Your task to perform on an android device: allow notifications from all sites in the chrome app Image 0: 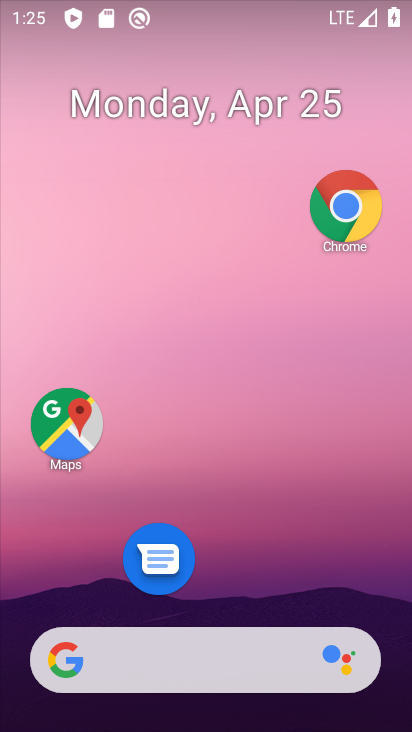
Step 0: click (329, 204)
Your task to perform on an android device: allow notifications from all sites in the chrome app Image 1: 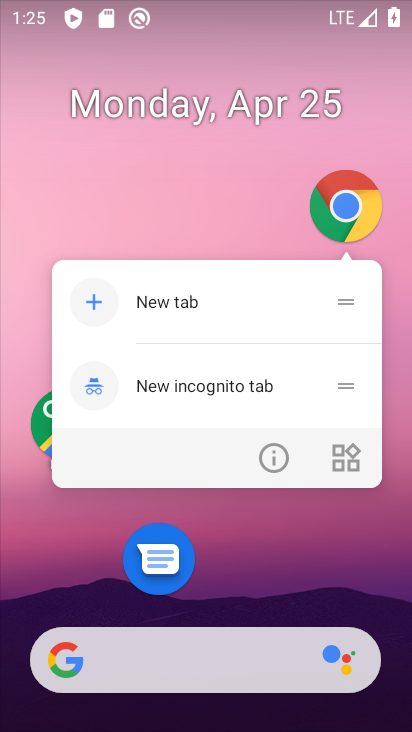
Step 1: click (346, 198)
Your task to perform on an android device: allow notifications from all sites in the chrome app Image 2: 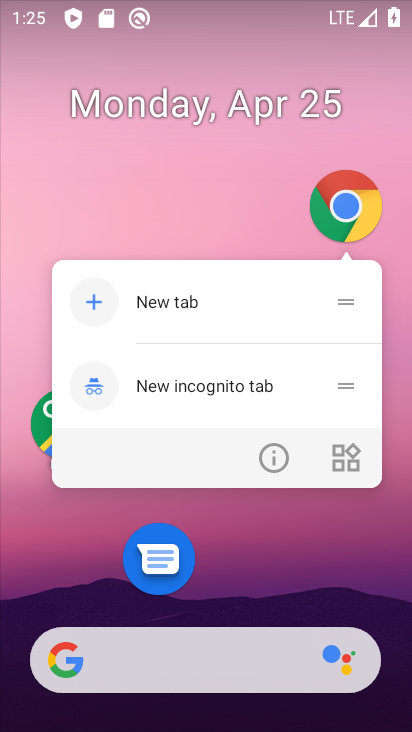
Step 2: click (338, 202)
Your task to perform on an android device: allow notifications from all sites in the chrome app Image 3: 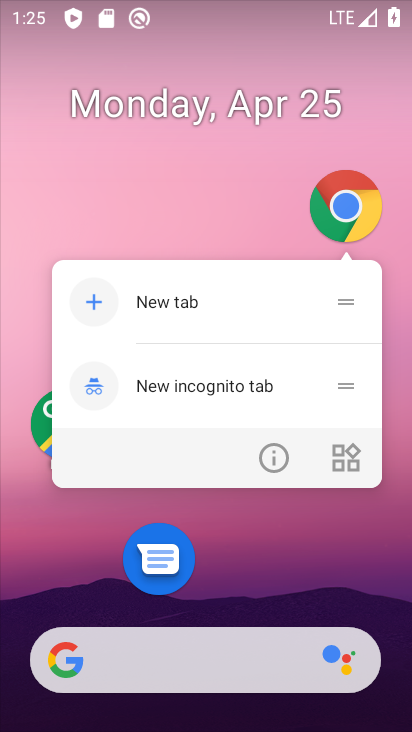
Step 3: click (347, 207)
Your task to perform on an android device: allow notifications from all sites in the chrome app Image 4: 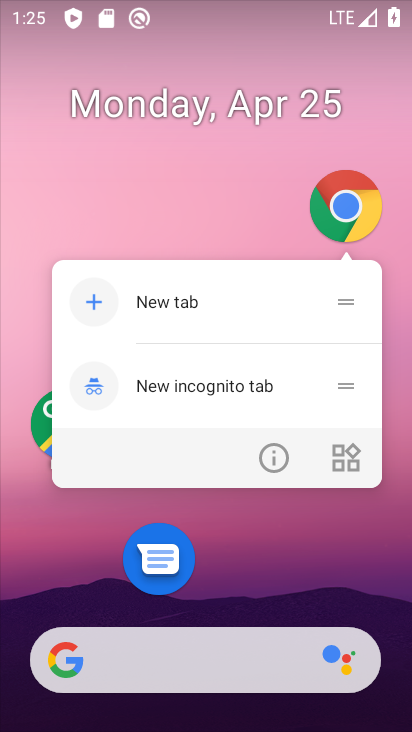
Step 4: click (342, 201)
Your task to perform on an android device: allow notifications from all sites in the chrome app Image 5: 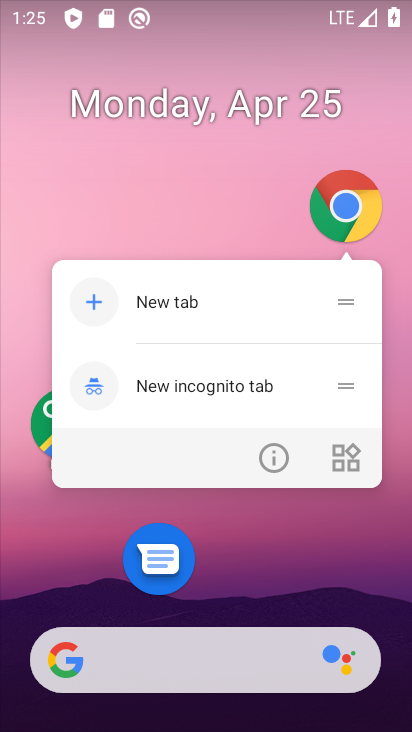
Step 5: click (351, 217)
Your task to perform on an android device: allow notifications from all sites in the chrome app Image 6: 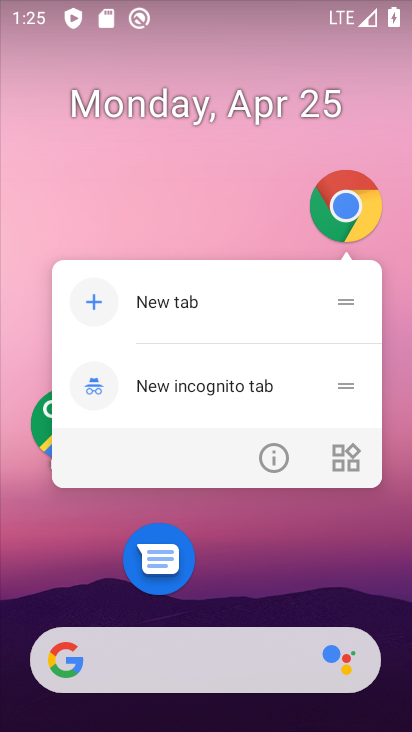
Step 6: click (359, 209)
Your task to perform on an android device: allow notifications from all sites in the chrome app Image 7: 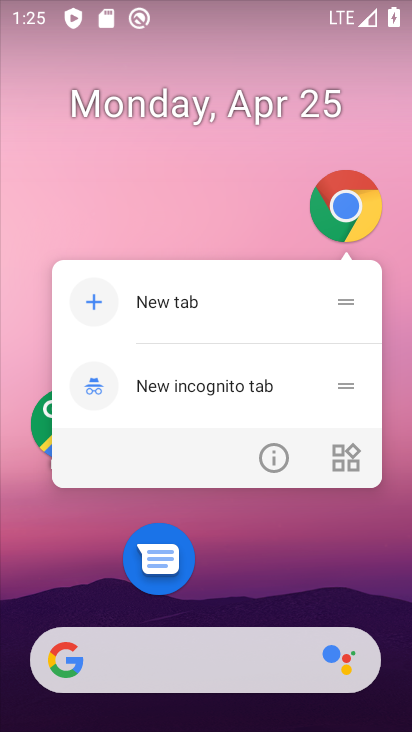
Step 7: click (330, 202)
Your task to perform on an android device: allow notifications from all sites in the chrome app Image 8: 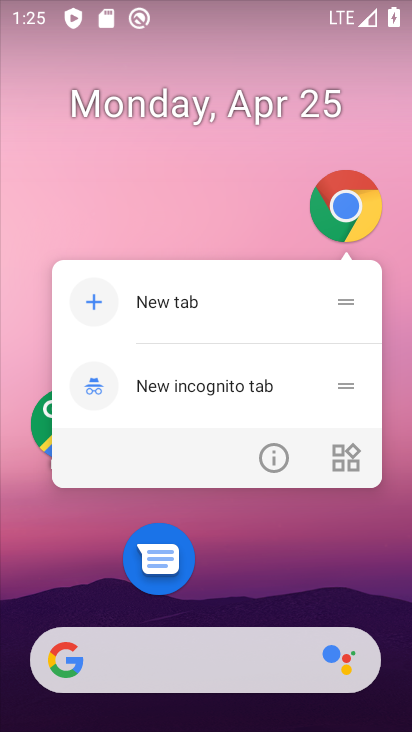
Step 8: click (340, 208)
Your task to perform on an android device: allow notifications from all sites in the chrome app Image 9: 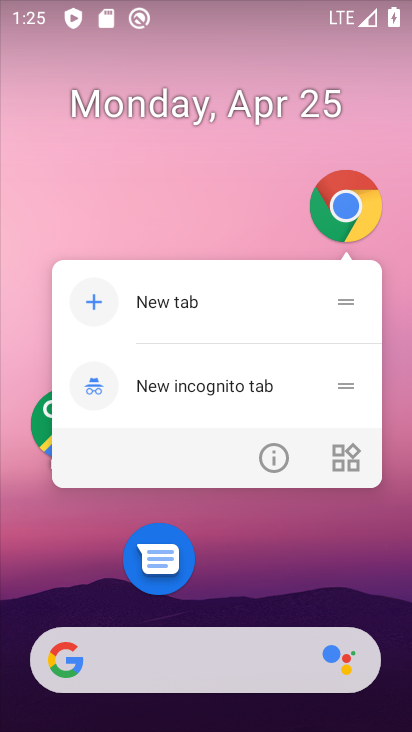
Step 9: click (357, 218)
Your task to perform on an android device: allow notifications from all sites in the chrome app Image 10: 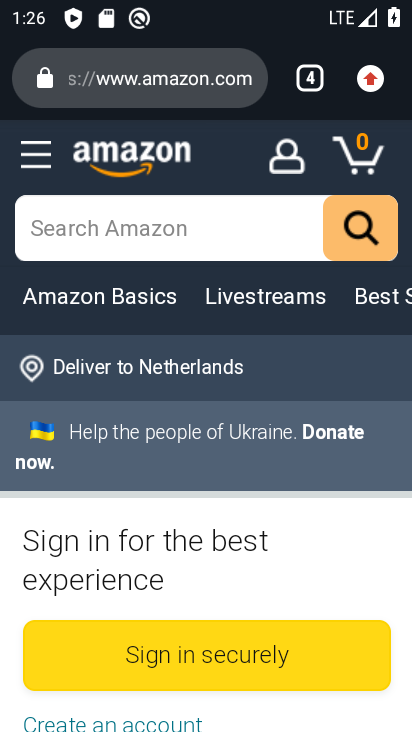
Step 10: drag from (366, 75) to (116, 609)
Your task to perform on an android device: allow notifications from all sites in the chrome app Image 11: 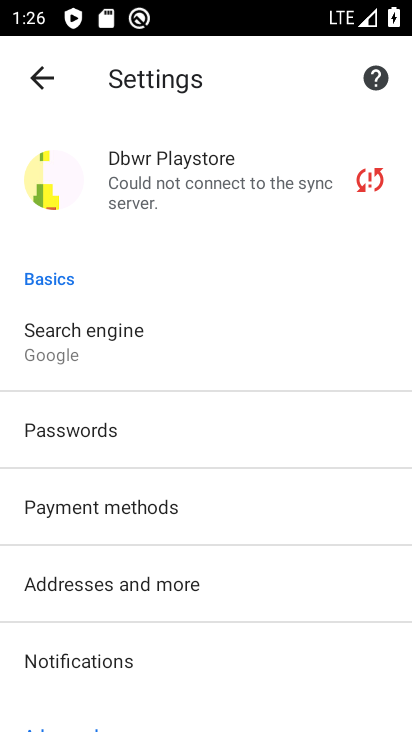
Step 11: drag from (150, 609) to (224, 176)
Your task to perform on an android device: allow notifications from all sites in the chrome app Image 12: 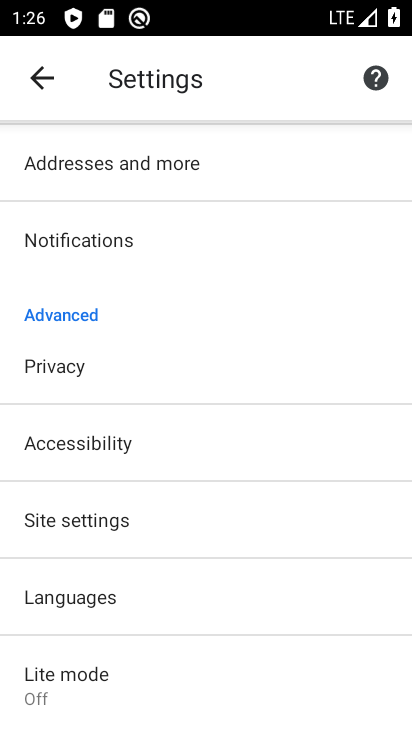
Step 12: click (125, 234)
Your task to perform on an android device: allow notifications from all sites in the chrome app Image 13: 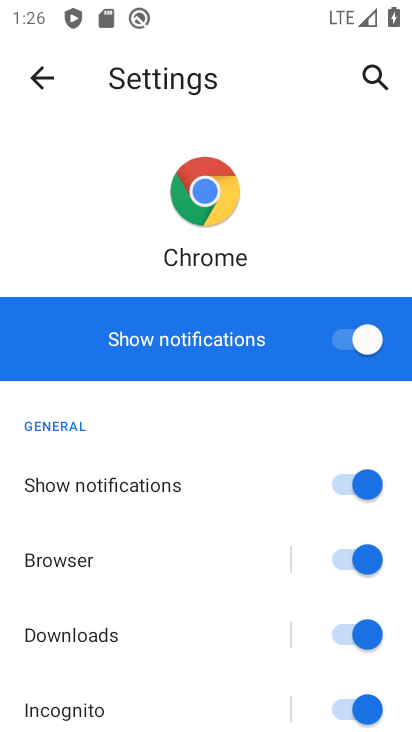
Step 13: task complete